Your task to perform on an android device: Open the map Image 0: 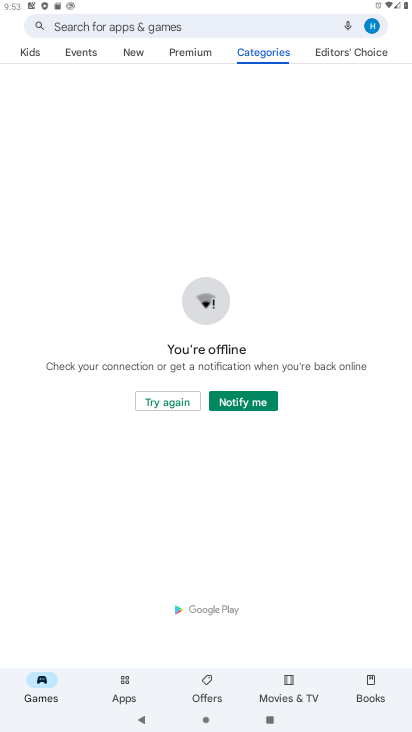
Step 0: press home button
Your task to perform on an android device: Open the map Image 1: 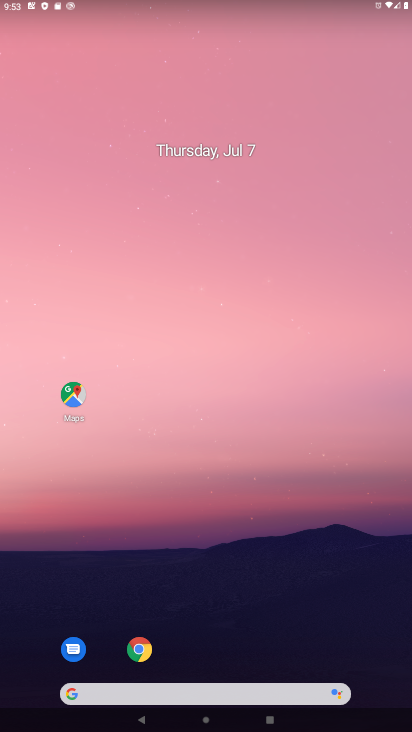
Step 1: drag from (236, 381) to (248, 36)
Your task to perform on an android device: Open the map Image 2: 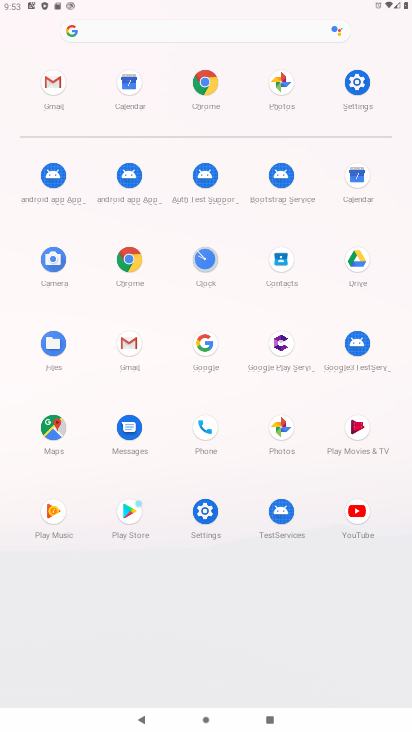
Step 2: click (51, 429)
Your task to perform on an android device: Open the map Image 3: 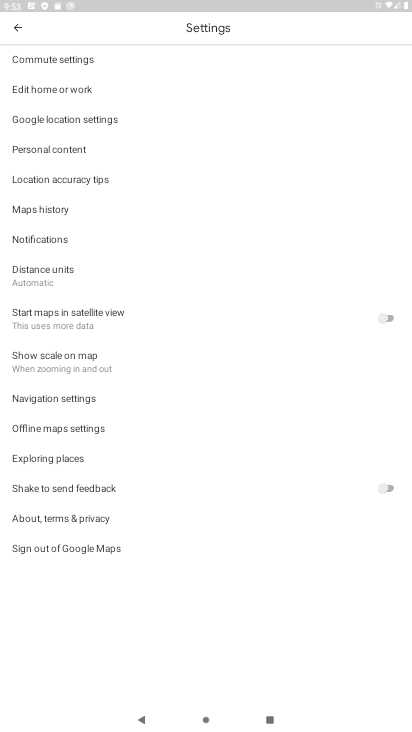
Step 3: click (18, 26)
Your task to perform on an android device: Open the map Image 4: 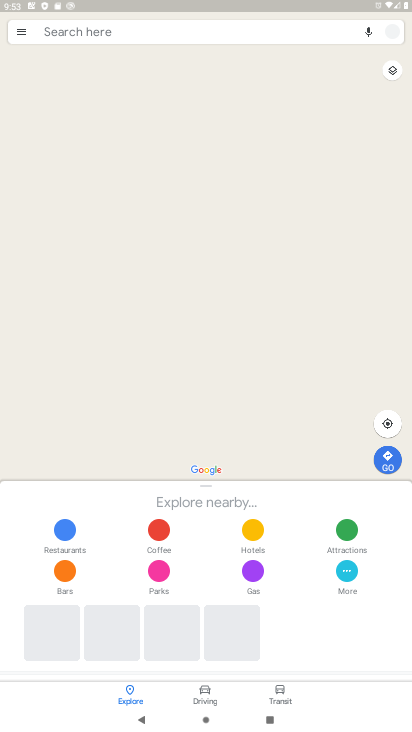
Step 4: click (18, 26)
Your task to perform on an android device: Open the map Image 5: 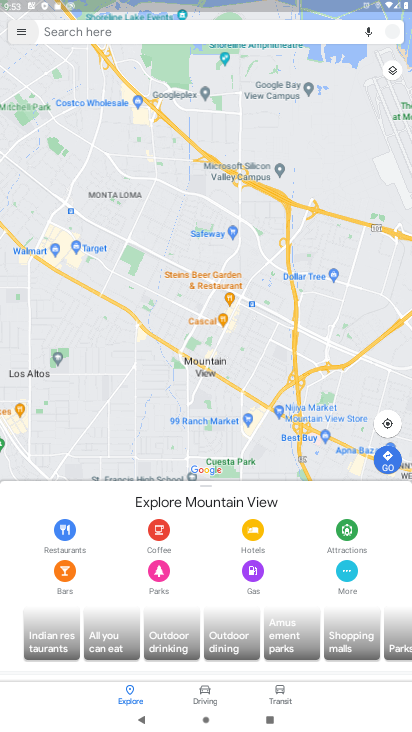
Step 5: task complete